Your task to perform on an android device: toggle data saver in the chrome app Image 0: 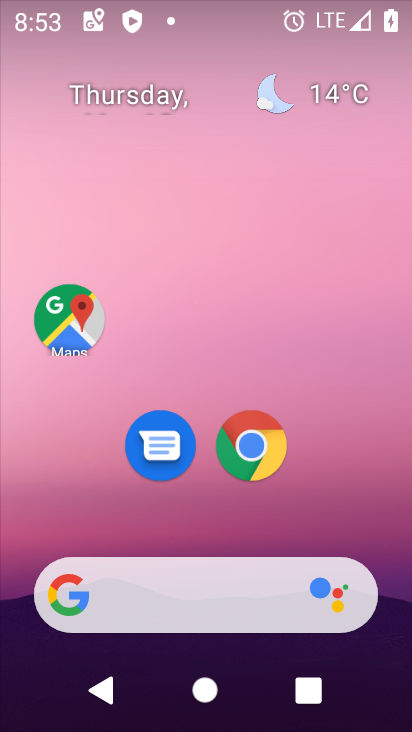
Step 0: click (251, 446)
Your task to perform on an android device: toggle data saver in the chrome app Image 1: 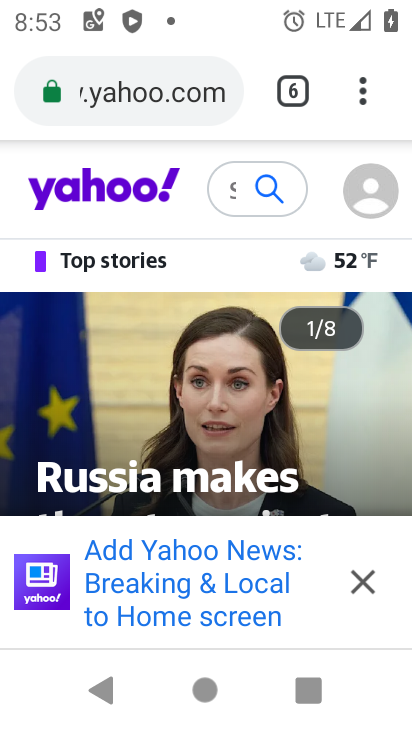
Step 1: click (365, 101)
Your task to perform on an android device: toggle data saver in the chrome app Image 2: 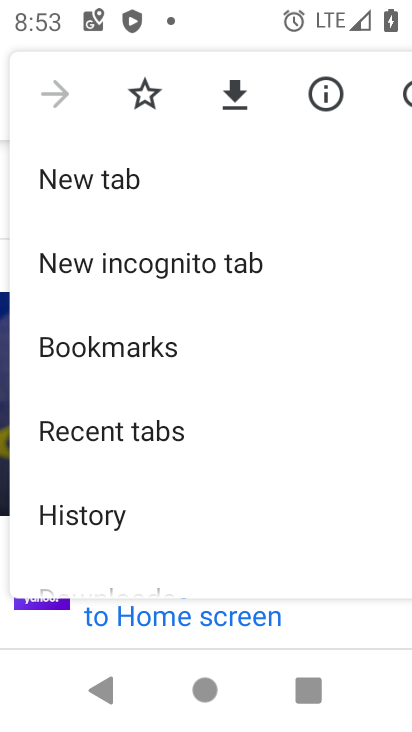
Step 2: drag from (161, 534) to (159, 146)
Your task to perform on an android device: toggle data saver in the chrome app Image 3: 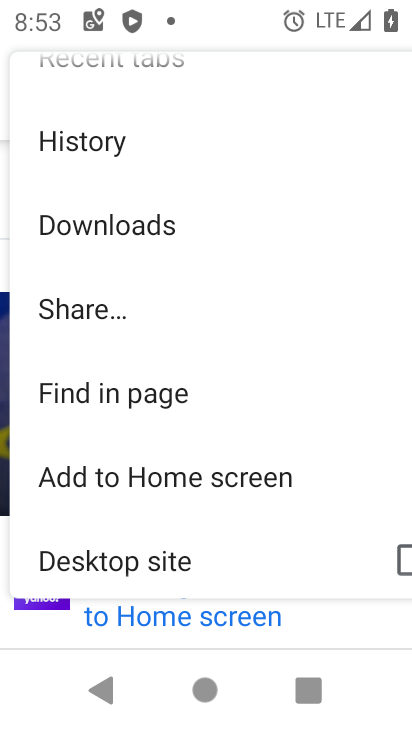
Step 3: drag from (143, 529) to (153, 153)
Your task to perform on an android device: toggle data saver in the chrome app Image 4: 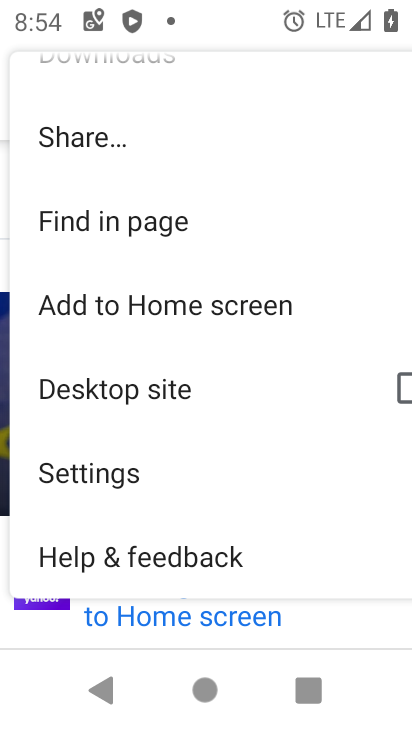
Step 4: click (109, 465)
Your task to perform on an android device: toggle data saver in the chrome app Image 5: 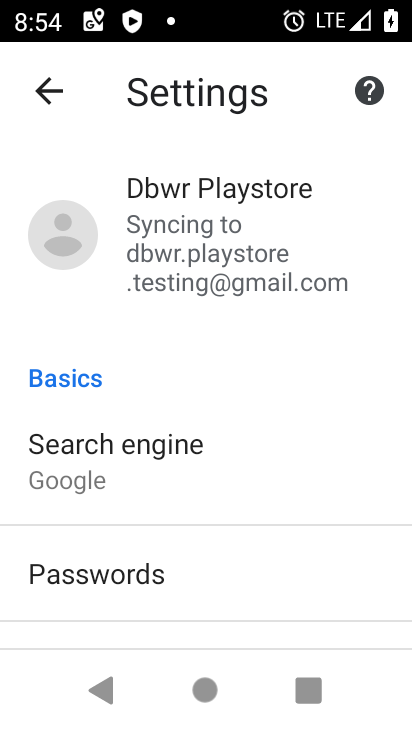
Step 5: drag from (215, 623) to (226, 178)
Your task to perform on an android device: toggle data saver in the chrome app Image 6: 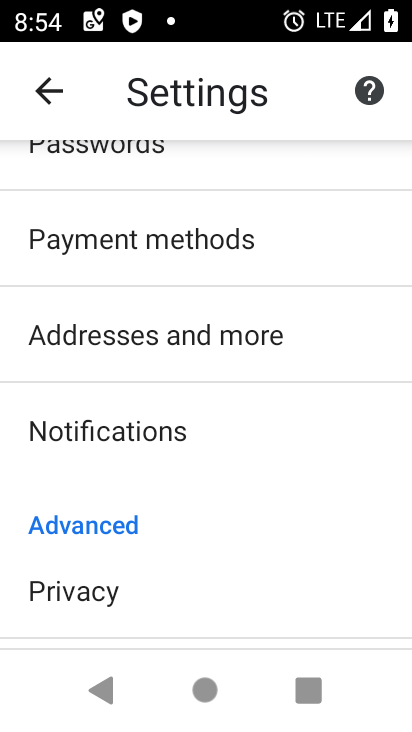
Step 6: drag from (193, 601) to (207, 295)
Your task to perform on an android device: toggle data saver in the chrome app Image 7: 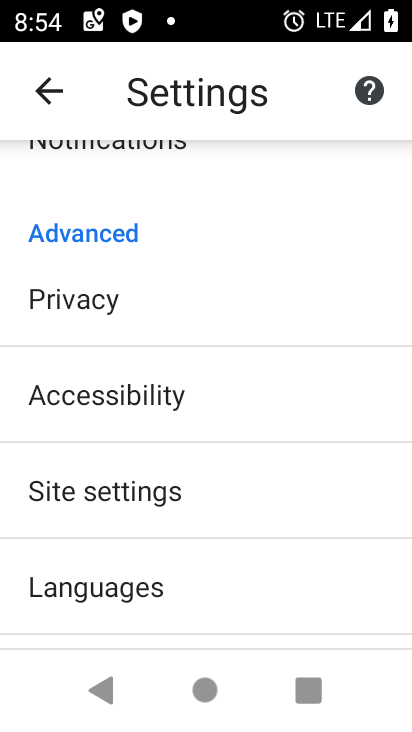
Step 7: drag from (218, 605) to (257, 269)
Your task to perform on an android device: toggle data saver in the chrome app Image 8: 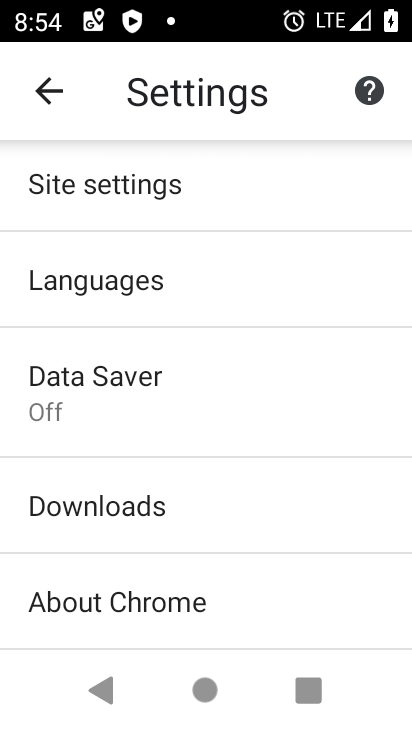
Step 8: click (108, 378)
Your task to perform on an android device: toggle data saver in the chrome app Image 9: 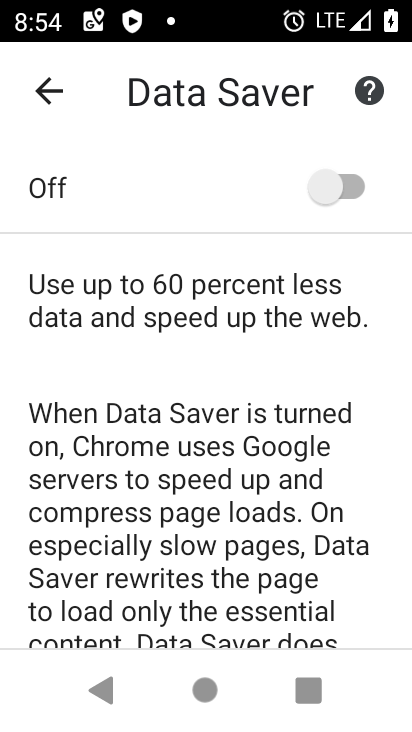
Step 9: click (347, 186)
Your task to perform on an android device: toggle data saver in the chrome app Image 10: 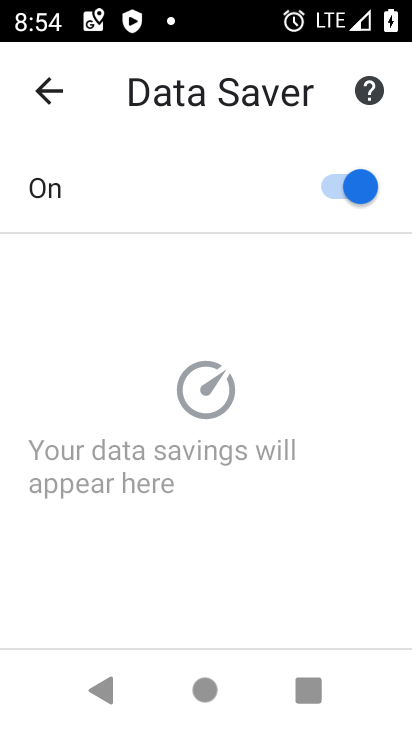
Step 10: task complete